Your task to perform on an android device: Go to Google maps Image 0: 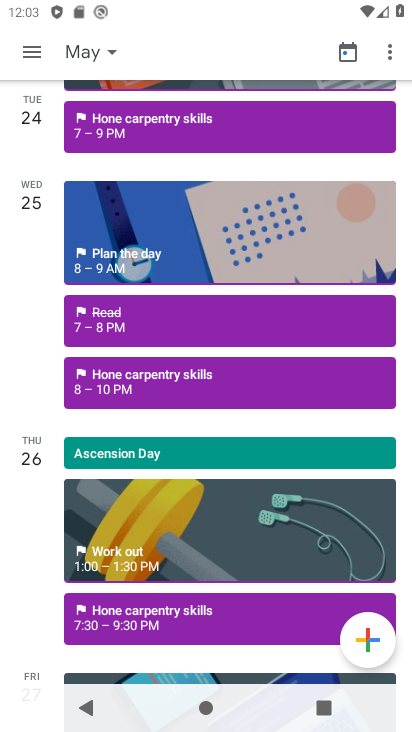
Step 0: press home button
Your task to perform on an android device: Go to Google maps Image 1: 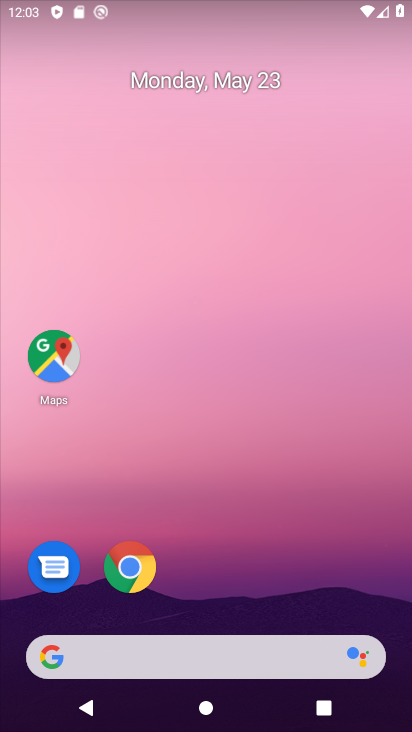
Step 1: click (53, 346)
Your task to perform on an android device: Go to Google maps Image 2: 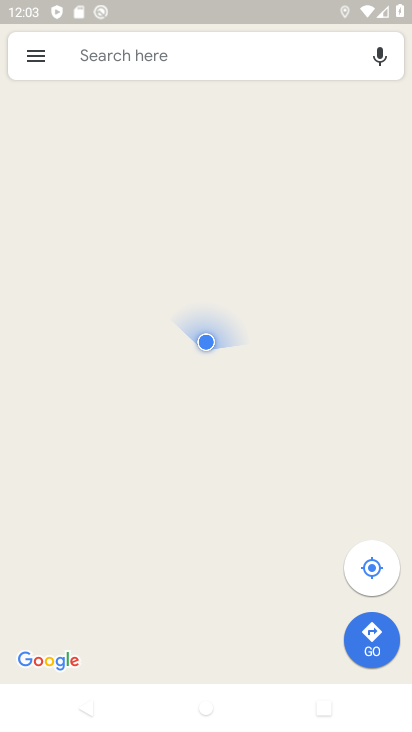
Step 2: task complete